Your task to perform on an android device: allow cookies in the chrome app Image 0: 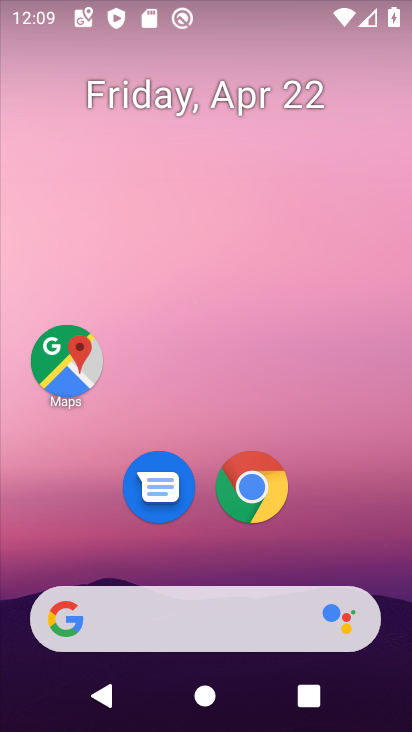
Step 0: click (239, 495)
Your task to perform on an android device: allow cookies in the chrome app Image 1: 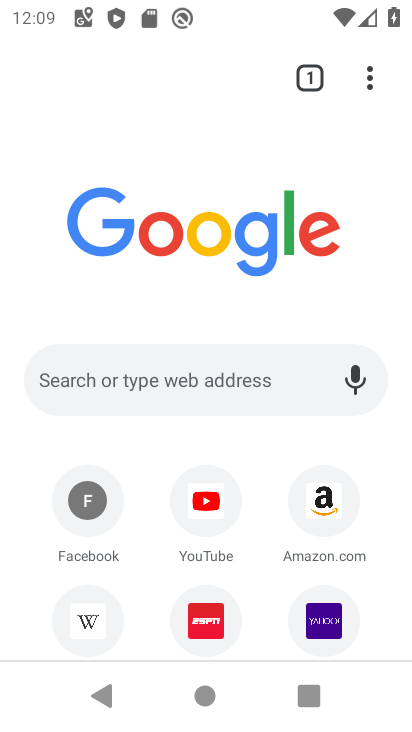
Step 1: click (367, 74)
Your task to perform on an android device: allow cookies in the chrome app Image 2: 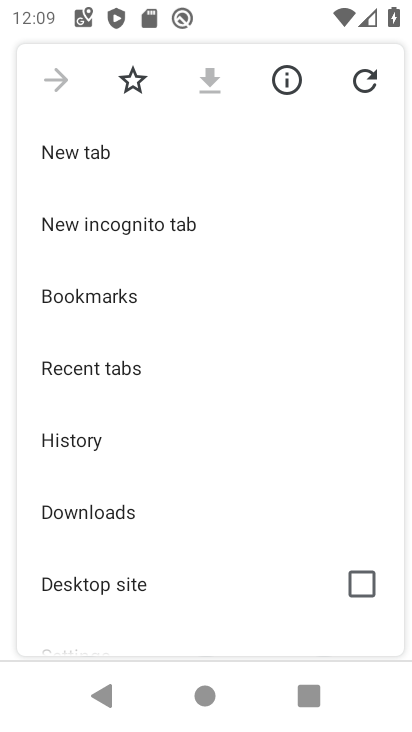
Step 2: drag from (165, 599) to (191, 181)
Your task to perform on an android device: allow cookies in the chrome app Image 3: 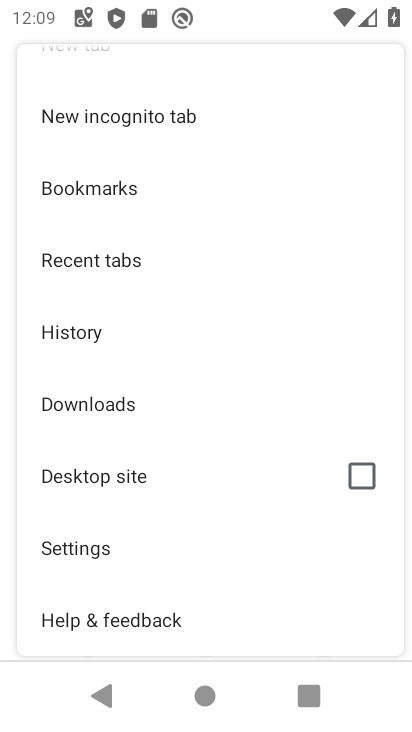
Step 3: click (114, 563)
Your task to perform on an android device: allow cookies in the chrome app Image 4: 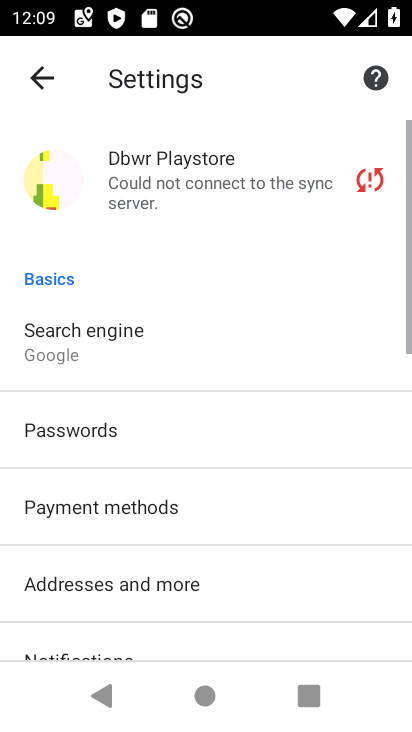
Step 4: drag from (114, 563) to (138, 66)
Your task to perform on an android device: allow cookies in the chrome app Image 5: 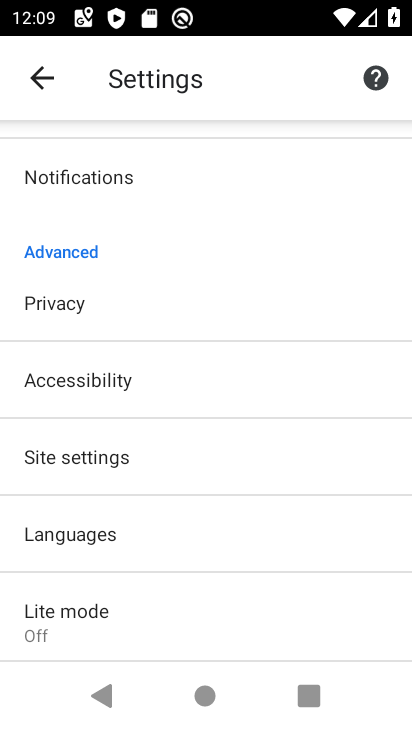
Step 5: drag from (129, 566) to (130, 204)
Your task to perform on an android device: allow cookies in the chrome app Image 6: 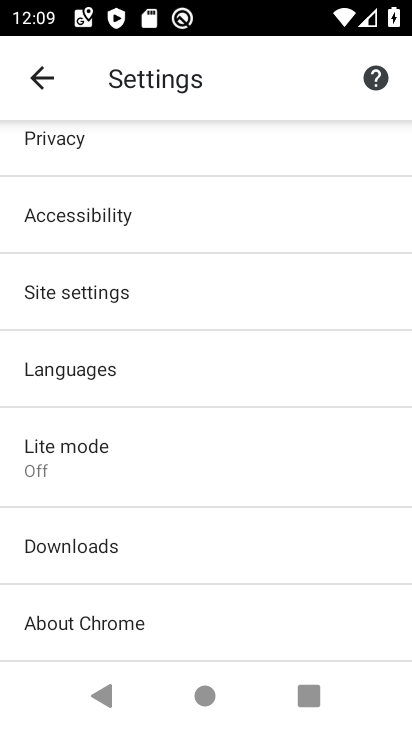
Step 6: click (94, 300)
Your task to perform on an android device: allow cookies in the chrome app Image 7: 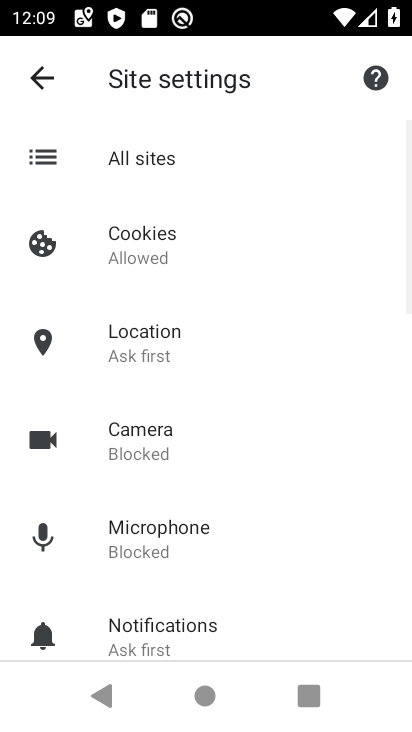
Step 7: click (166, 252)
Your task to perform on an android device: allow cookies in the chrome app Image 8: 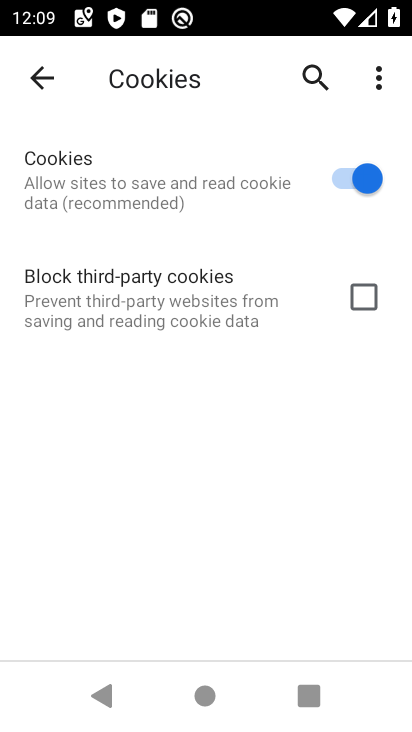
Step 8: task complete